Your task to perform on an android device: Check the weather Image 0: 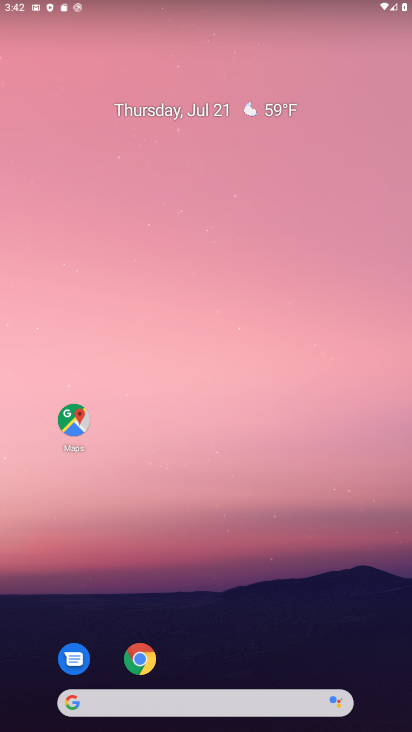
Step 0: drag from (245, 698) to (272, 51)
Your task to perform on an android device: Check the weather Image 1: 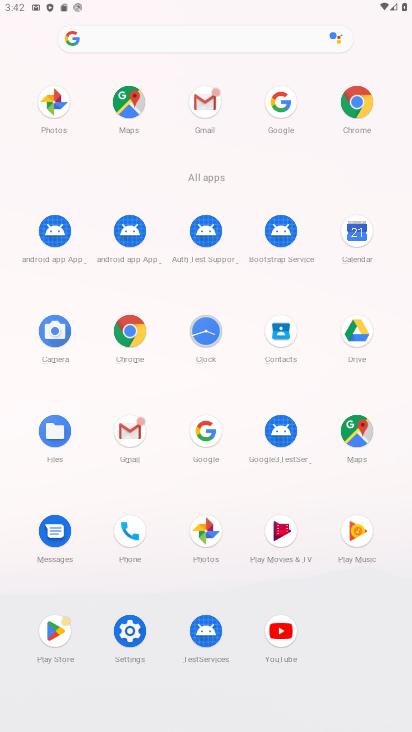
Step 1: click (280, 101)
Your task to perform on an android device: Check the weather Image 2: 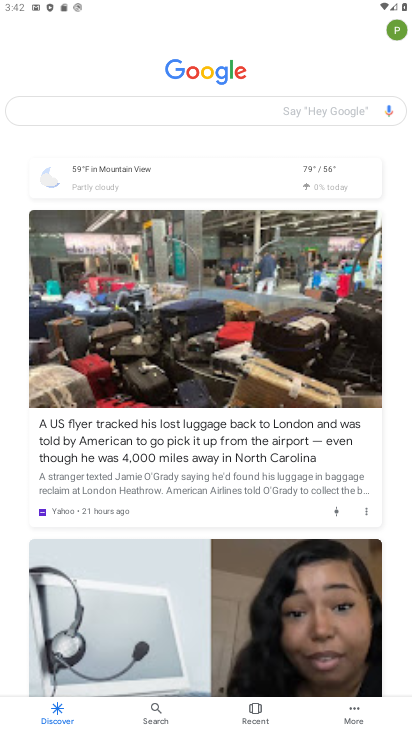
Step 2: click (318, 172)
Your task to perform on an android device: Check the weather Image 3: 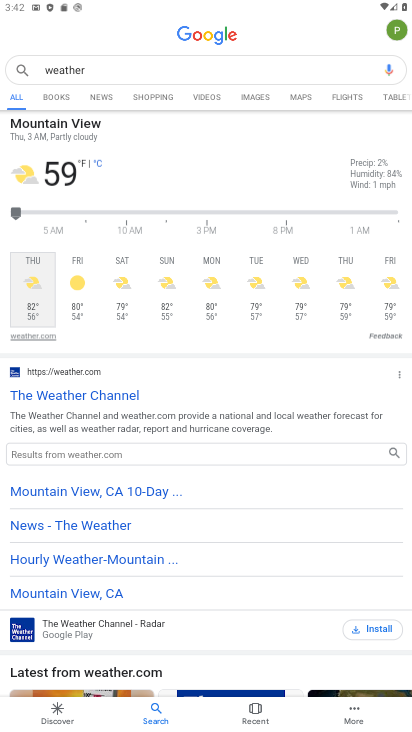
Step 3: task complete